Your task to perform on an android device: Go to Google maps Image 0: 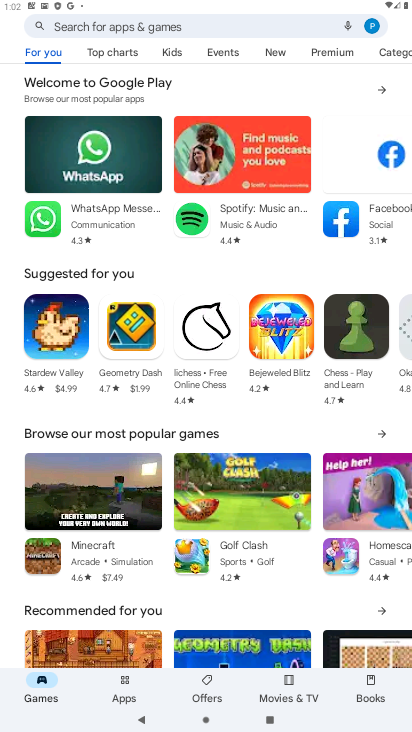
Step 0: drag from (371, 680) to (225, 56)
Your task to perform on an android device: Go to Google maps Image 1: 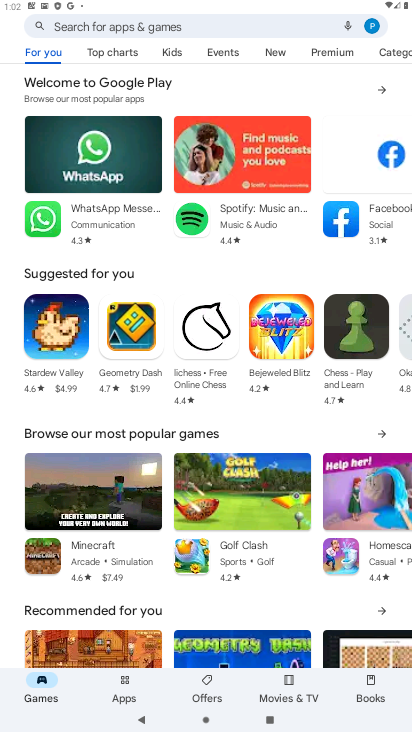
Step 1: press home button
Your task to perform on an android device: Go to Google maps Image 2: 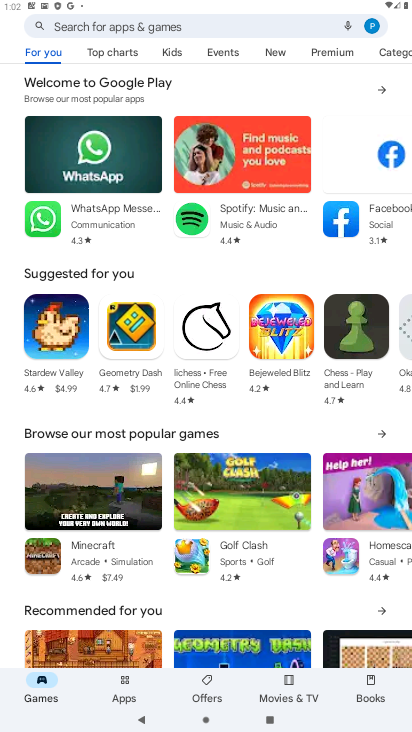
Step 2: drag from (368, 688) to (241, 23)
Your task to perform on an android device: Go to Google maps Image 3: 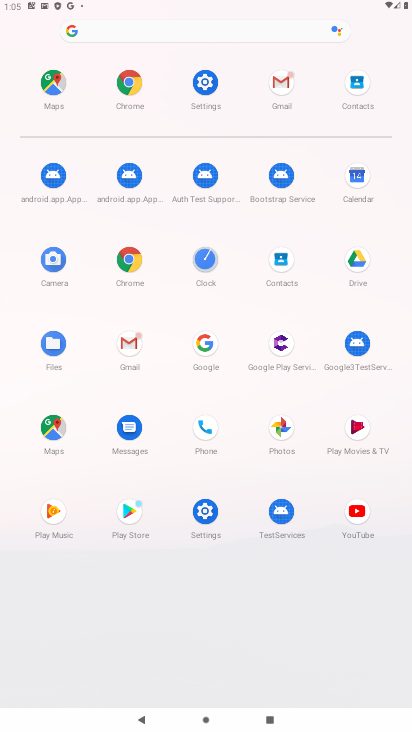
Step 3: click (50, 435)
Your task to perform on an android device: Go to Google maps Image 4: 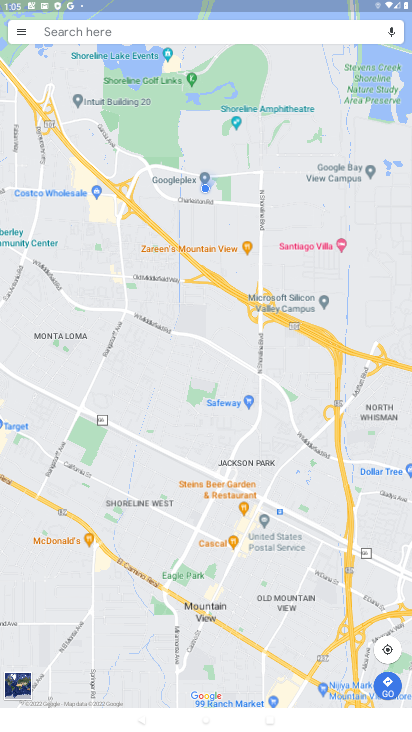
Step 4: task complete